Your task to perform on an android device: Go to Google Image 0: 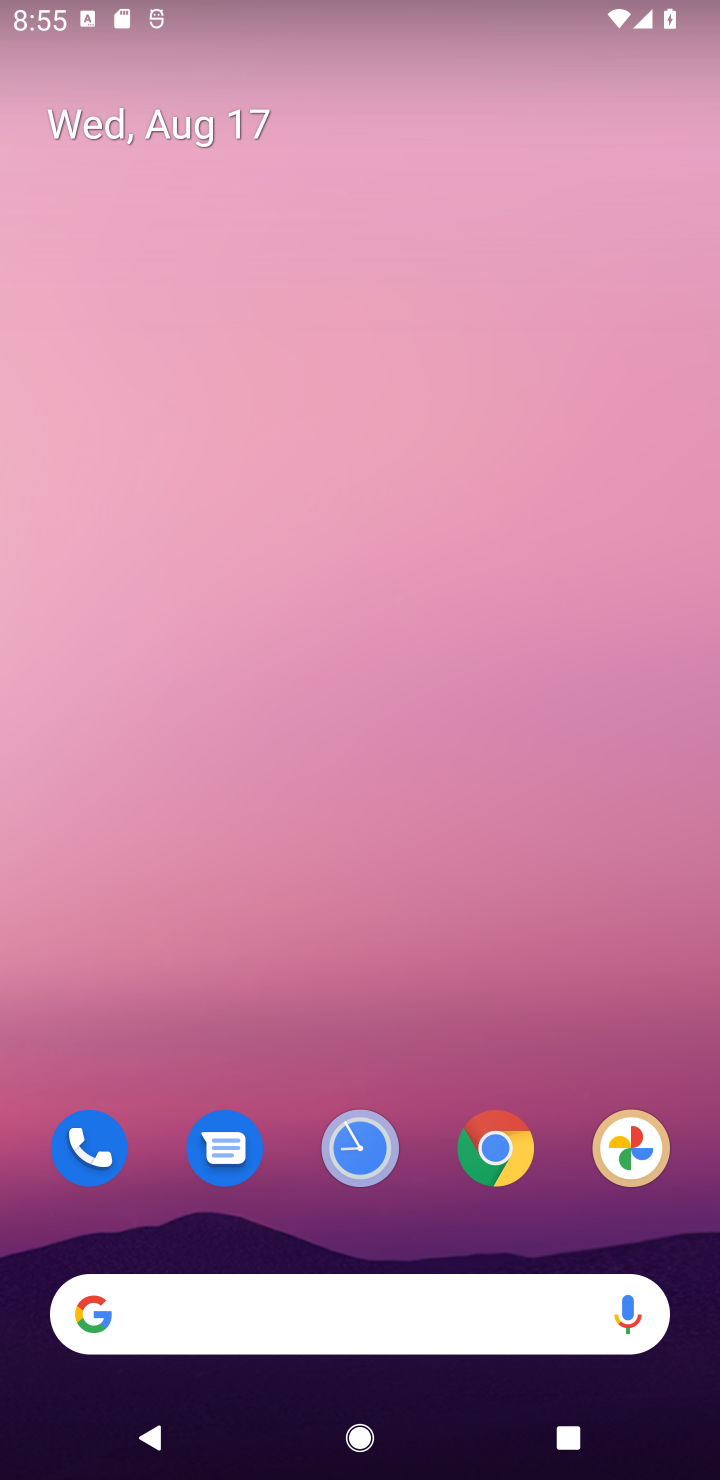
Step 0: click (497, 1153)
Your task to perform on an android device: Go to Google Image 1: 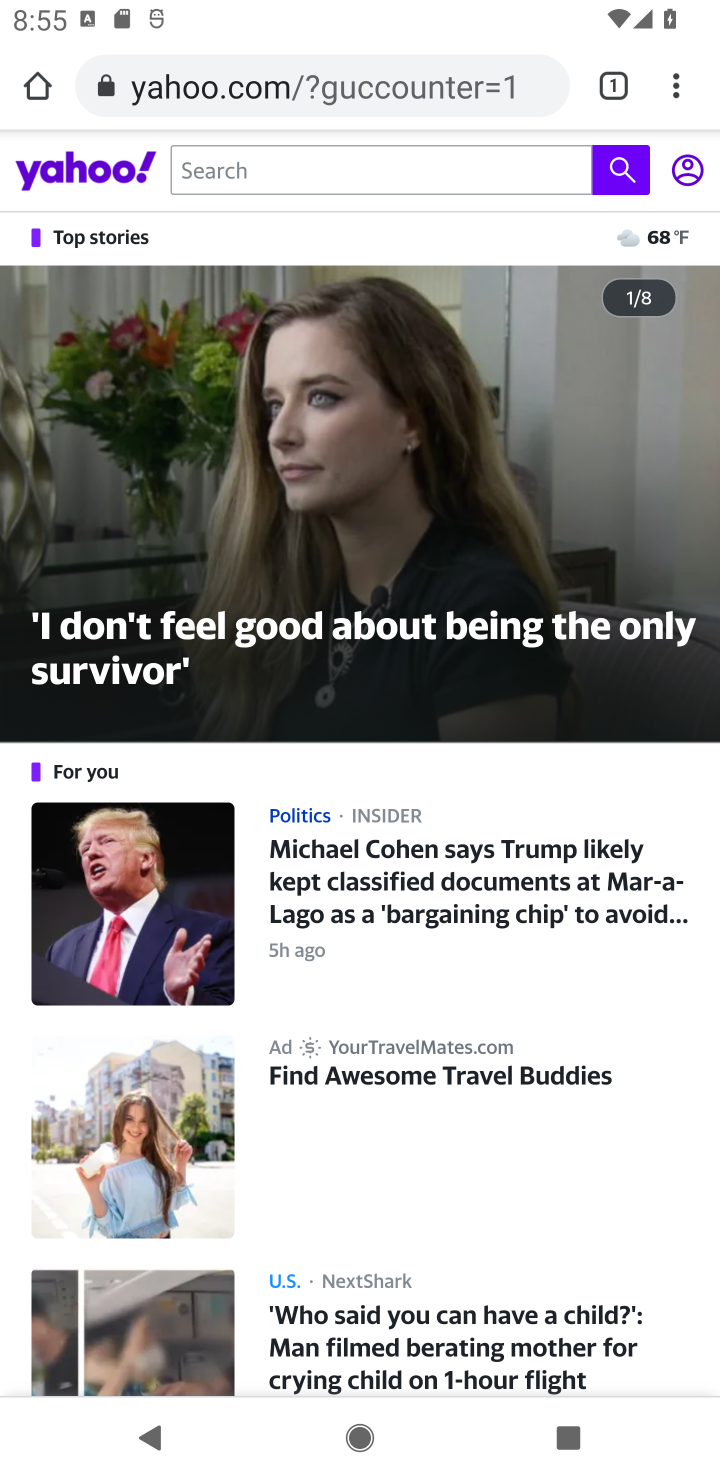
Step 1: task complete